Your task to perform on an android device: open app "DuckDuckGo Privacy Browser" (install if not already installed) and go to login screen Image 0: 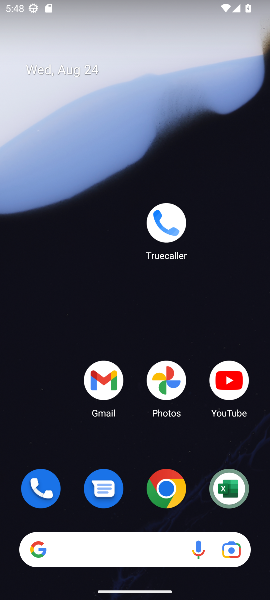
Step 0: drag from (129, 507) to (124, 111)
Your task to perform on an android device: open app "DuckDuckGo Privacy Browser" (install if not already installed) and go to login screen Image 1: 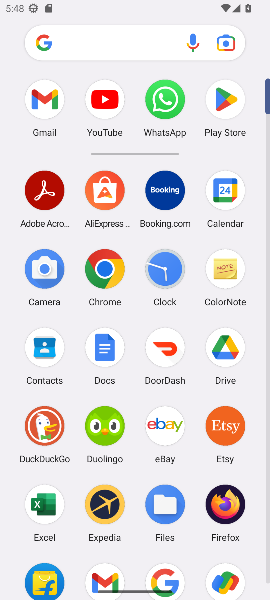
Step 1: click (222, 97)
Your task to perform on an android device: open app "DuckDuckGo Privacy Browser" (install if not already installed) and go to login screen Image 2: 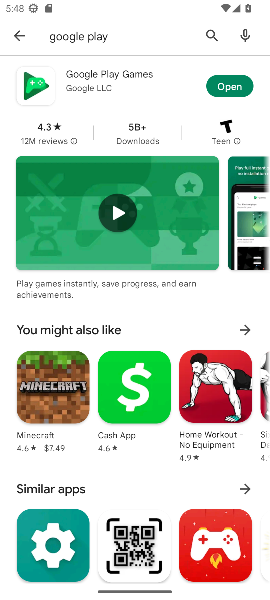
Step 2: click (209, 38)
Your task to perform on an android device: open app "DuckDuckGo Privacy Browser" (install if not already installed) and go to login screen Image 3: 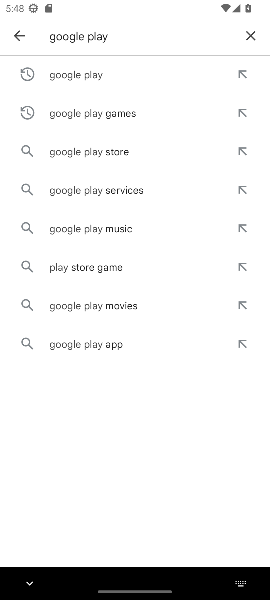
Step 3: click (258, 37)
Your task to perform on an android device: open app "DuckDuckGo Privacy Browser" (install if not already installed) and go to login screen Image 4: 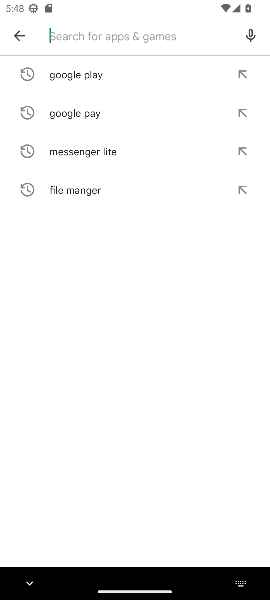
Step 4: type "duck duck go"
Your task to perform on an android device: open app "DuckDuckGo Privacy Browser" (install if not already installed) and go to login screen Image 5: 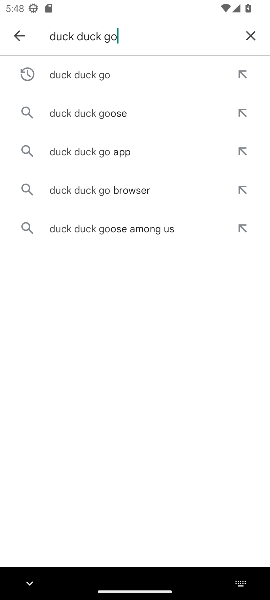
Step 5: click (100, 88)
Your task to perform on an android device: open app "DuckDuckGo Privacy Browser" (install if not already installed) and go to login screen Image 6: 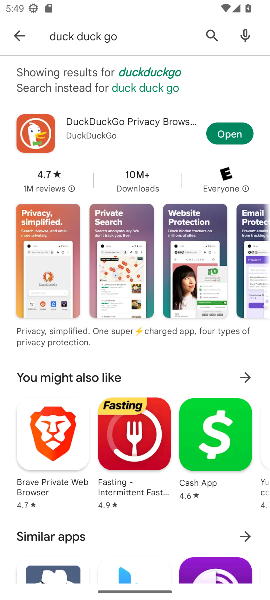
Step 6: click (227, 135)
Your task to perform on an android device: open app "DuckDuckGo Privacy Browser" (install if not already installed) and go to login screen Image 7: 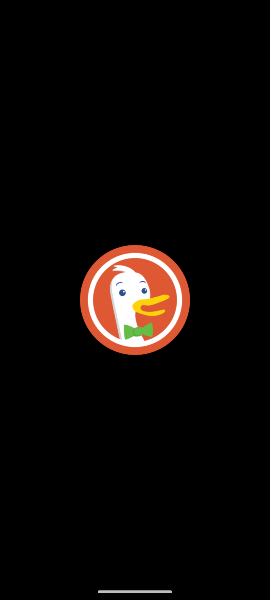
Step 7: task complete